Your task to perform on an android device: Open the Play Movies app and select the watchlist tab. Image 0: 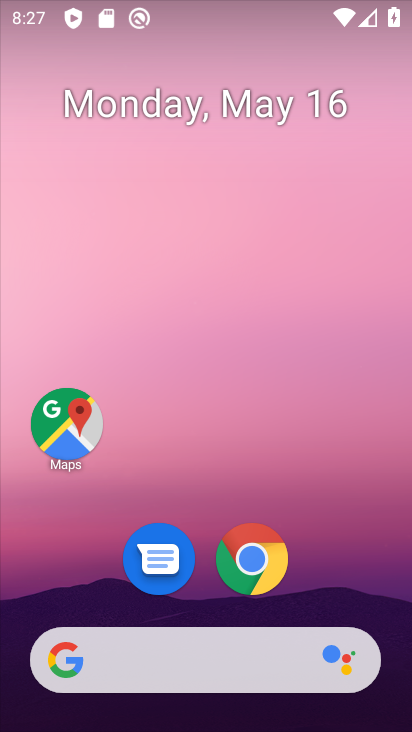
Step 0: drag from (312, 599) to (313, 85)
Your task to perform on an android device: Open the Play Movies app and select the watchlist tab. Image 1: 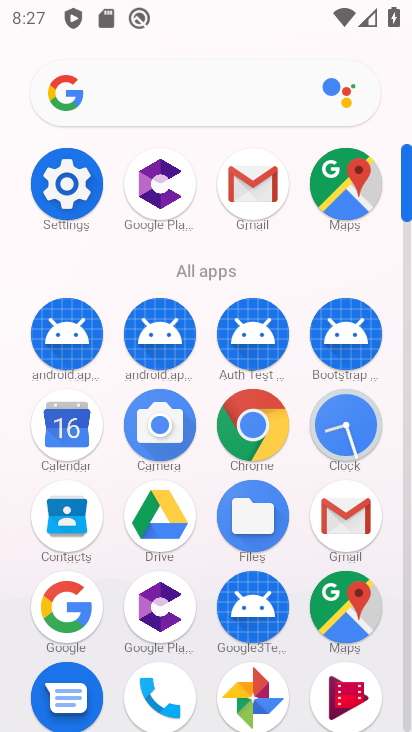
Step 1: click (333, 691)
Your task to perform on an android device: Open the Play Movies app and select the watchlist tab. Image 2: 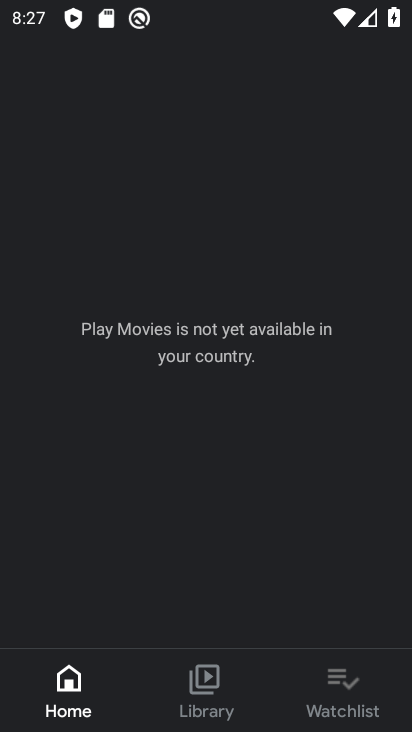
Step 2: click (342, 691)
Your task to perform on an android device: Open the Play Movies app and select the watchlist tab. Image 3: 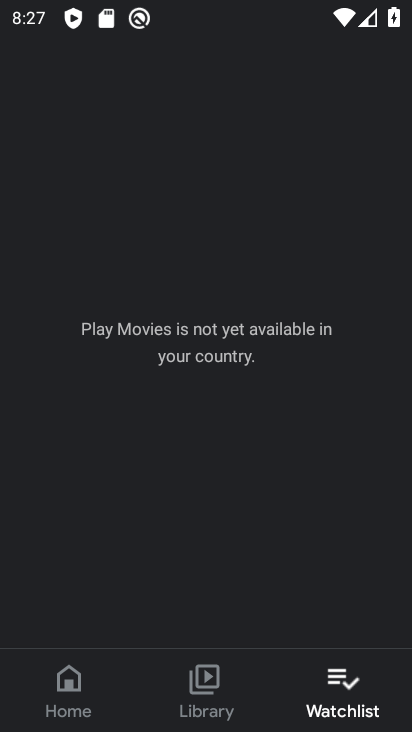
Step 3: task complete